Your task to perform on an android device: set default search engine in the chrome app Image 0: 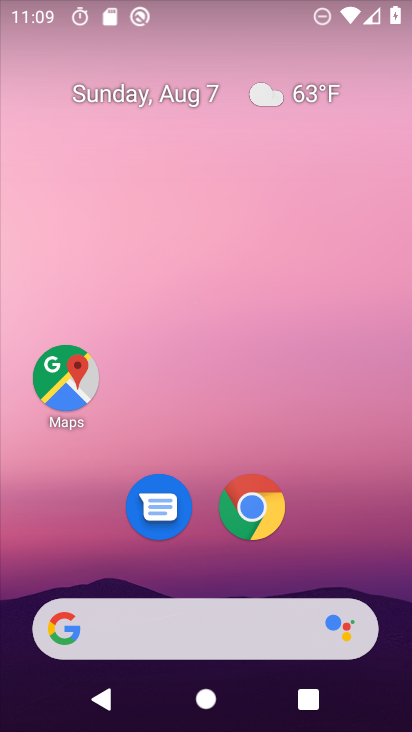
Step 0: drag from (359, 511) to (316, 11)
Your task to perform on an android device: set default search engine in the chrome app Image 1: 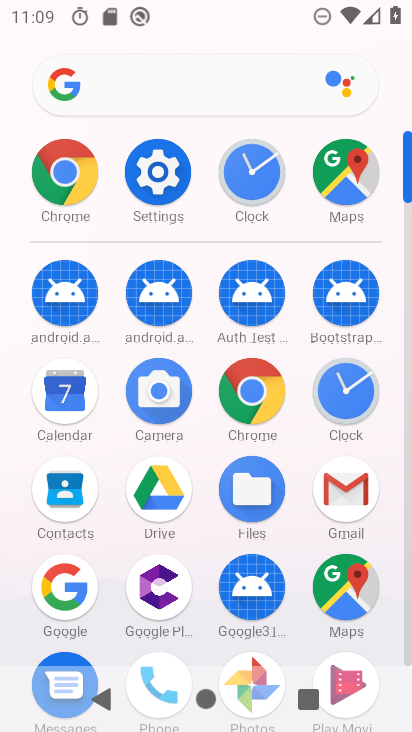
Step 1: click (248, 395)
Your task to perform on an android device: set default search engine in the chrome app Image 2: 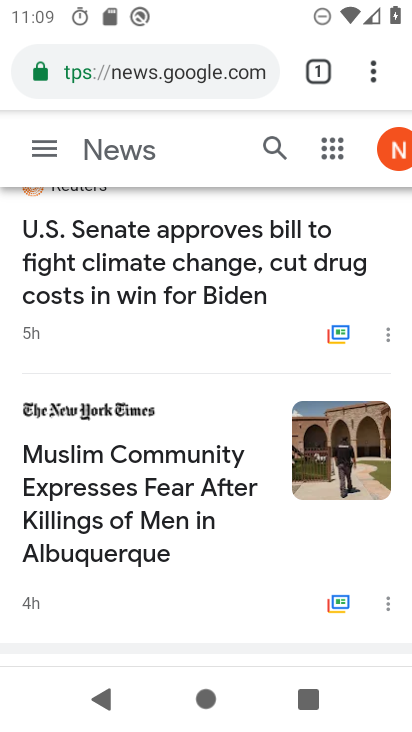
Step 2: drag from (386, 61) to (135, 512)
Your task to perform on an android device: set default search engine in the chrome app Image 3: 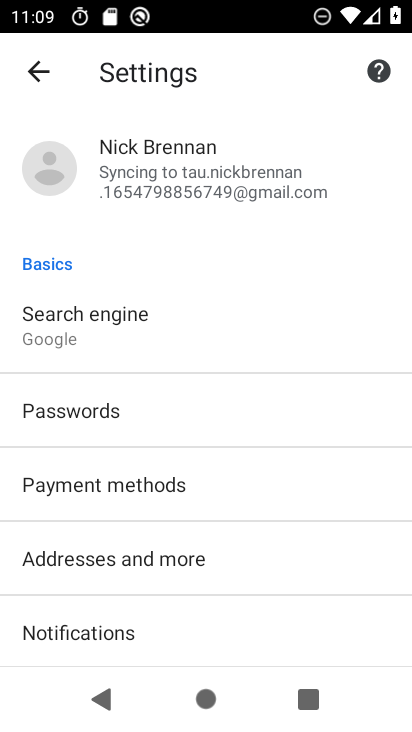
Step 3: click (133, 334)
Your task to perform on an android device: set default search engine in the chrome app Image 4: 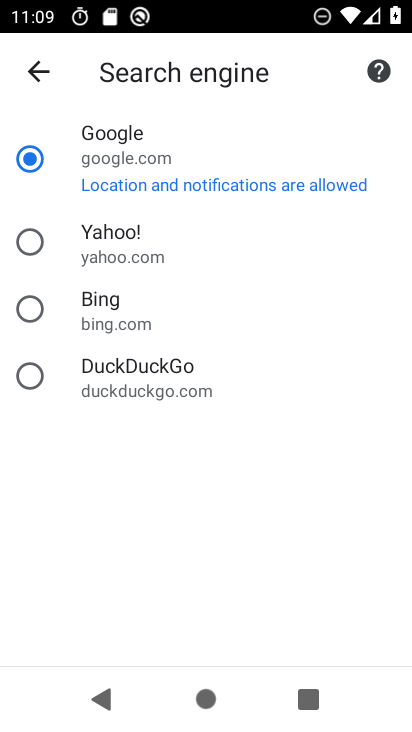
Step 4: task complete